Your task to perform on an android device: turn notification dots on Image 0: 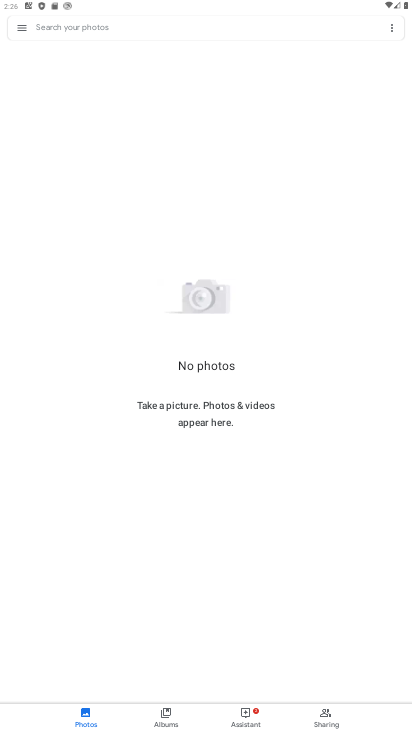
Step 0: press home button
Your task to perform on an android device: turn notification dots on Image 1: 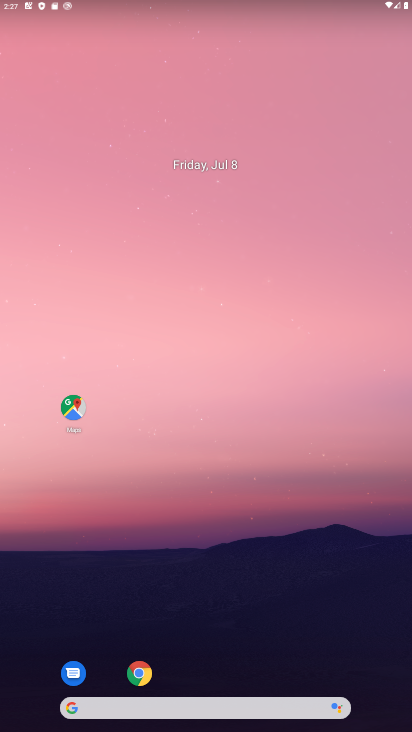
Step 1: drag from (227, 576) to (237, 220)
Your task to perform on an android device: turn notification dots on Image 2: 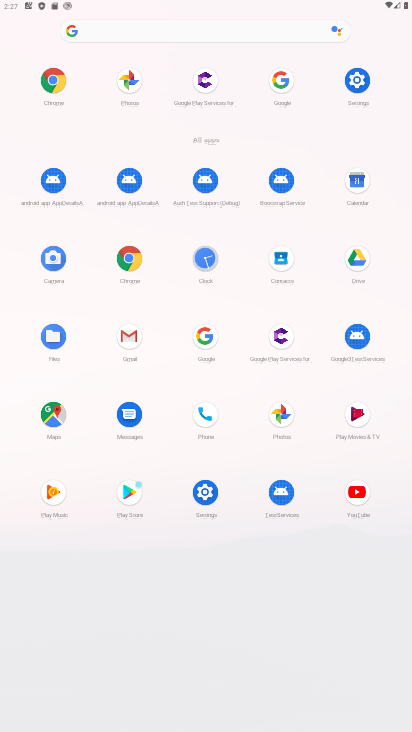
Step 2: click (362, 85)
Your task to perform on an android device: turn notification dots on Image 3: 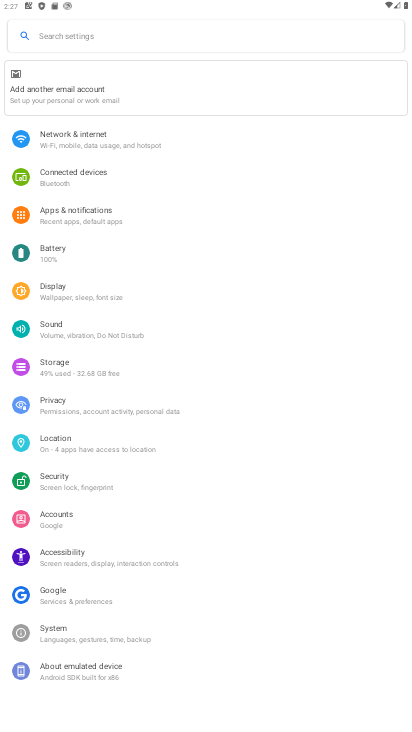
Step 3: click (96, 216)
Your task to perform on an android device: turn notification dots on Image 4: 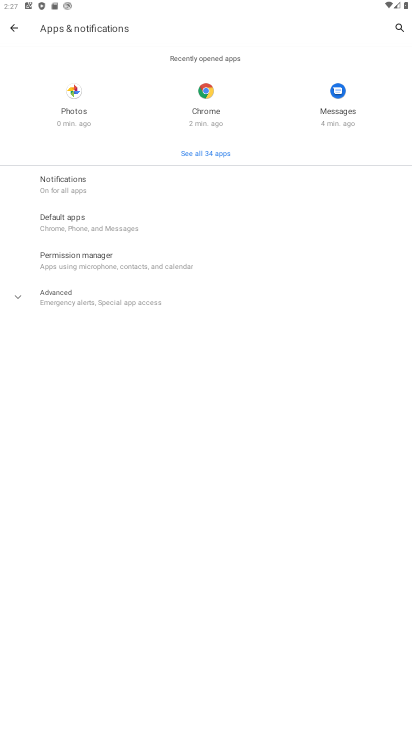
Step 4: click (77, 181)
Your task to perform on an android device: turn notification dots on Image 5: 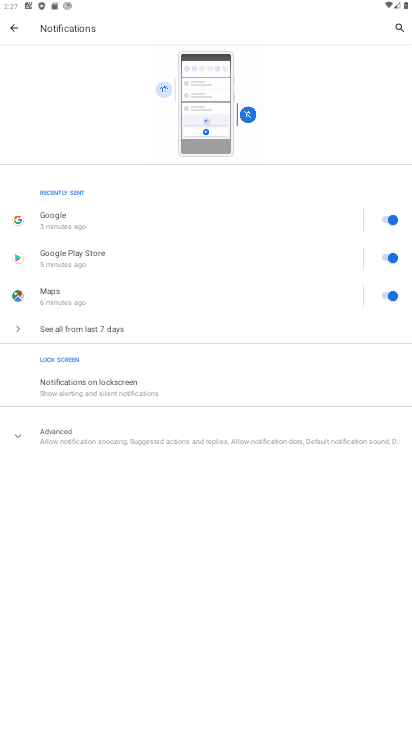
Step 5: click (103, 427)
Your task to perform on an android device: turn notification dots on Image 6: 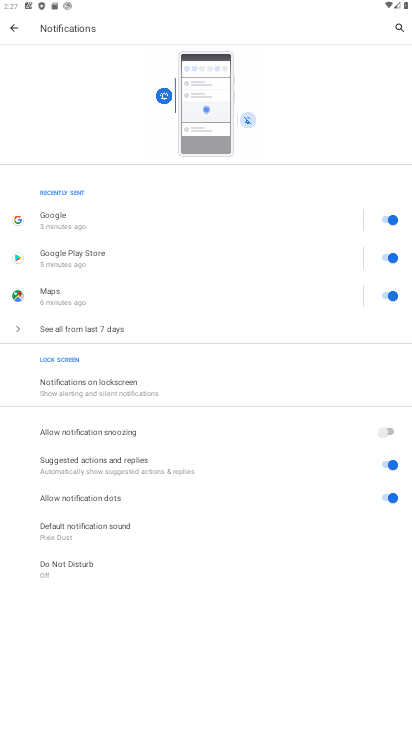
Step 6: task complete